Your task to perform on an android device: Play the last video I watched on Youtube Image 0: 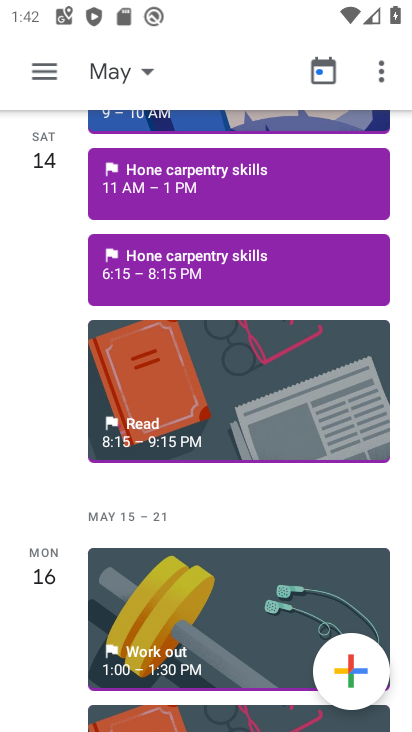
Step 0: press back button
Your task to perform on an android device: Play the last video I watched on Youtube Image 1: 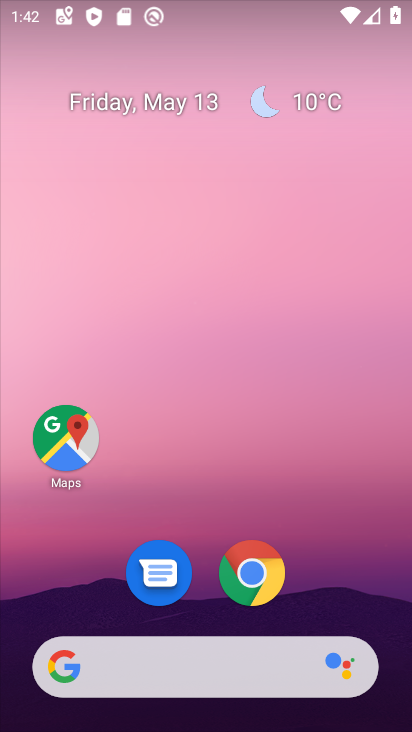
Step 1: drag from (332, 527) to (217, 9)
Your task to perform on an android device: Play the last video I watched on Youtube Image 2: 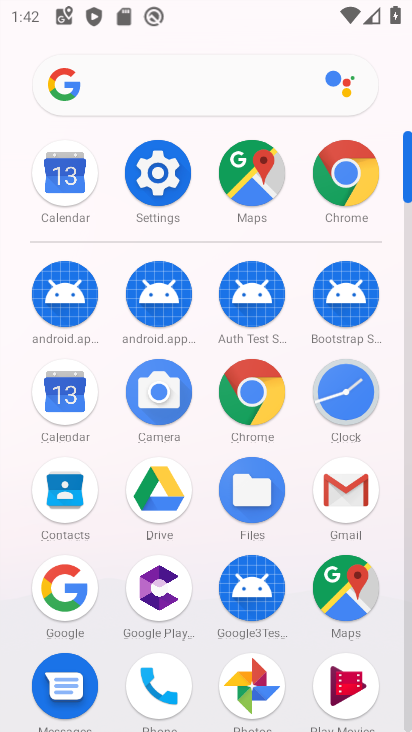
Step 2: drag from (5, 563) to (21, 270)
Your task to perform on an android device: Play the last video I watched on Youtube Image 3: 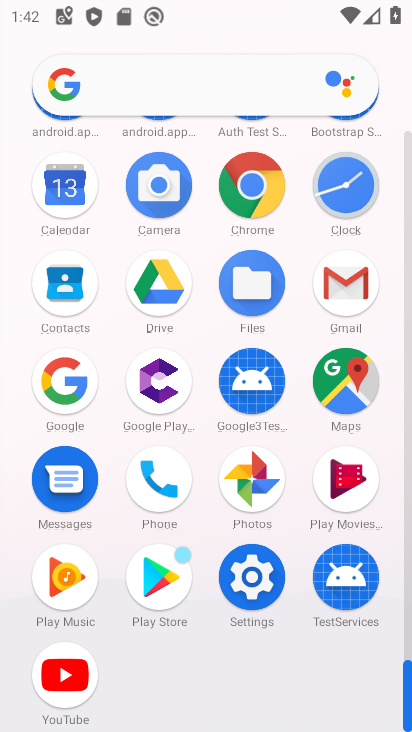
Step 3: click (61, 672)
Your task to perform on an android device: Play the last video I watched on Youtube Image 4: 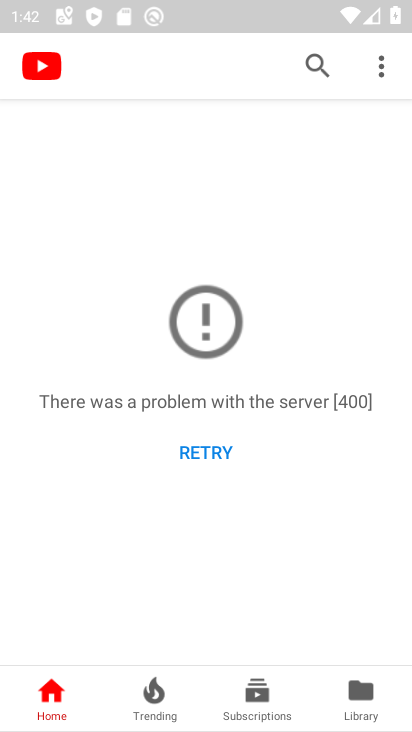
Step 4: click (348, 682)
Your task to perform on an android device: Play the last video I watched on Youtube Image 5: 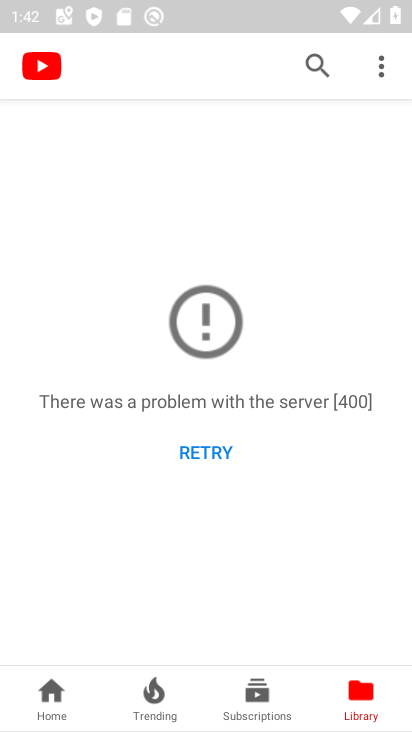
Step 5: click (346, 681)
Your task to perform on an android device: Play the last video I watched on Youtube Image 6: 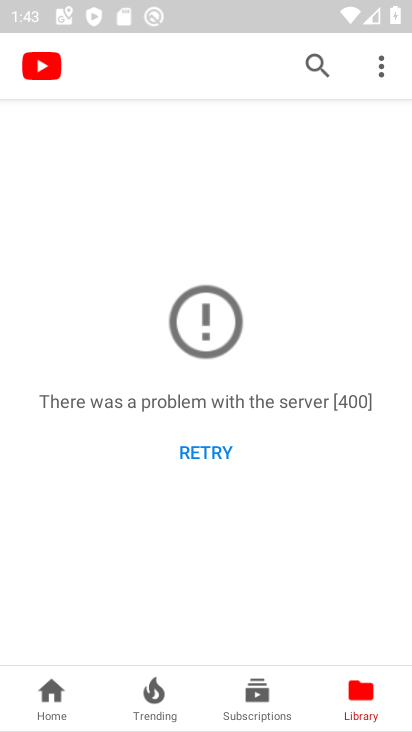
Step 6: task complete